Your task to perform on an android device: check data usage Image 0: 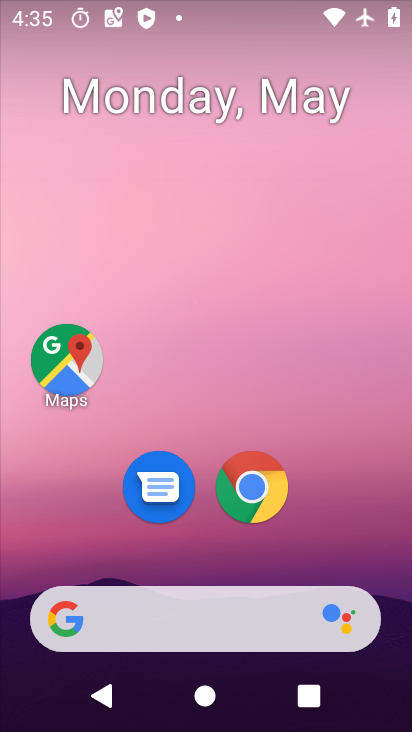
Step 0: click (261, 201)
Your task to perform on an android device: check data usage Image 1: 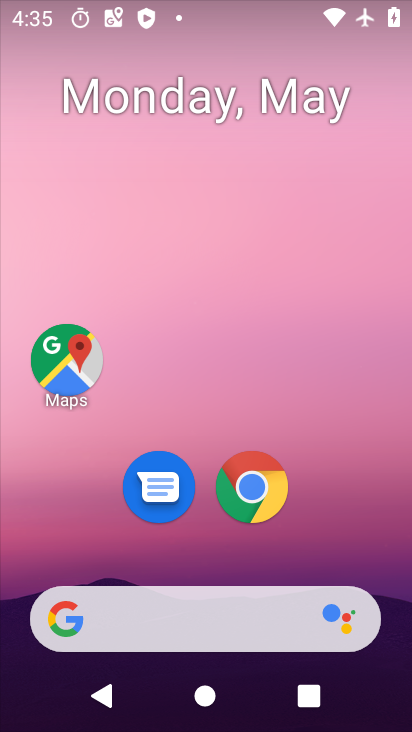
Step 1: drag from (243, 569) to (270, 158)
Your task to perform on an android device: check data usage Image 2: 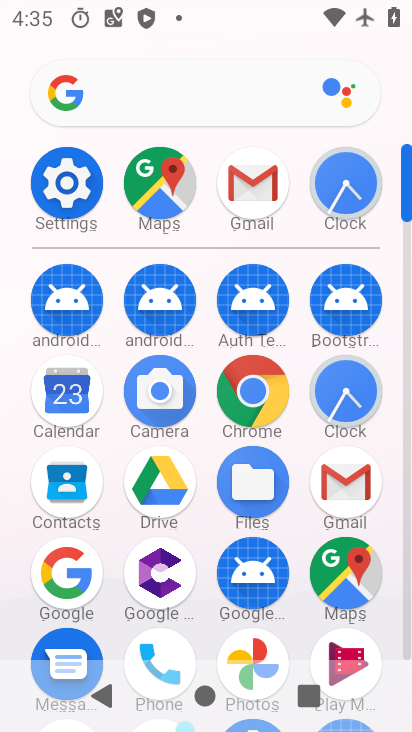
Step 2: click (61, 183)
Your task to perform on an android device: check data usage Image 3: 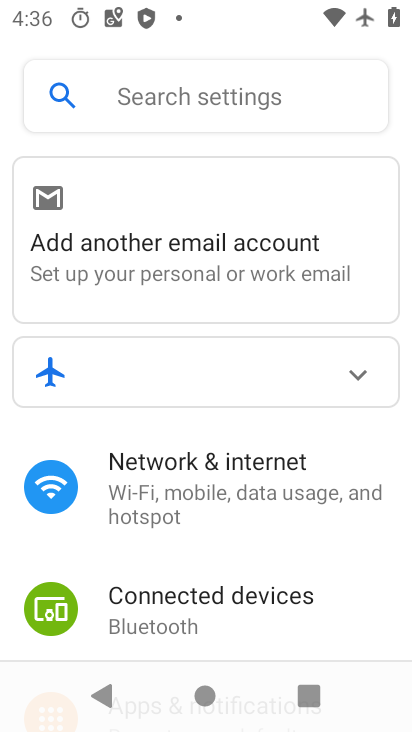
Step 3: click (168, 501)
Your task to perform on an android device: check data usage Image 4: 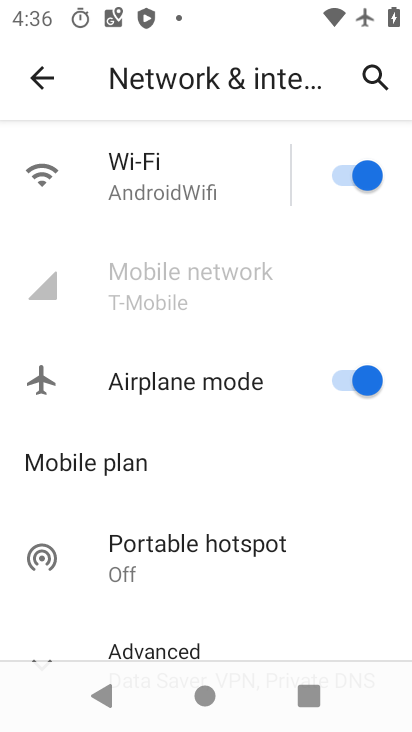
Step 4: click (341, 392)
Your task to perform on an android device: check data usage Image 5: 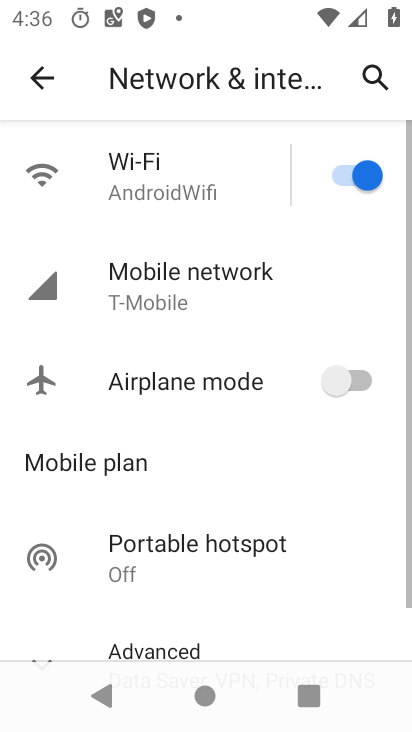
Step 5: click (192, 298)
Your task to perform on an android device: check data usage Image 6: 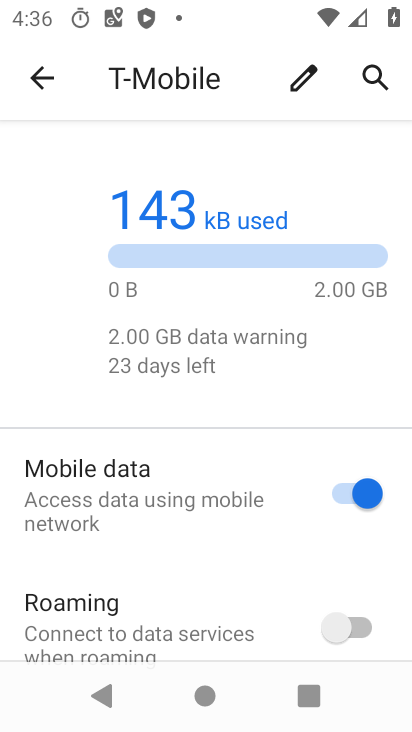
Step 6: press home button
Your task to perform on an android device: check data usage Image 7: 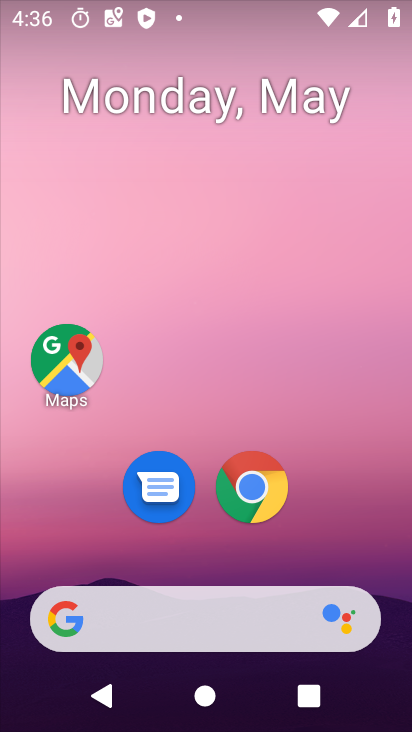
Step 7: drag from (193, 589) to (193, 167)
Your task to perform on an android device: check data usage Image 8: 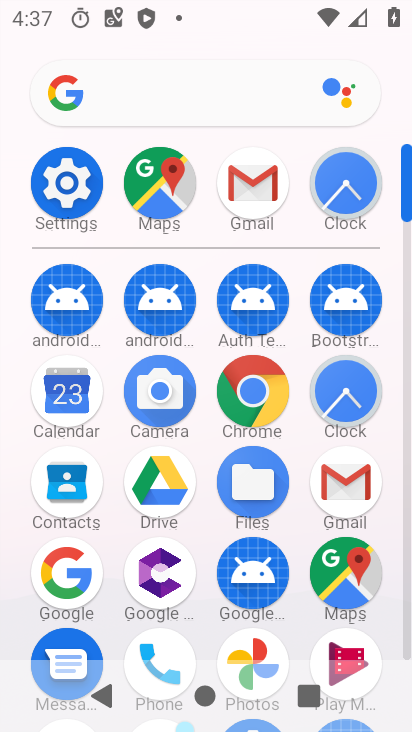
Step 8: click (64, 189)
Your task to perform on an android device: check data usage Image 9: 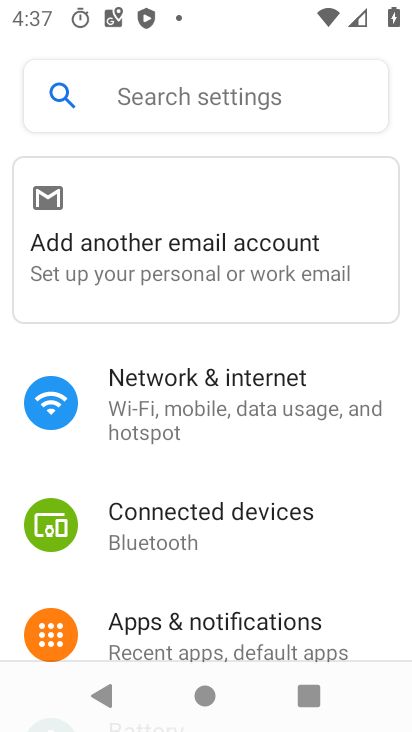
Step 9: click (199, 403)
Your task to perform on an android device: check data usage Image 10: 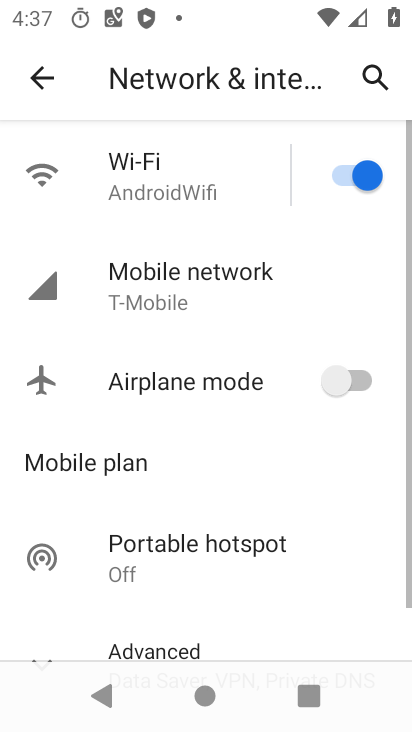
Step 10: click (177, 293)
Your task to perform on an android device: check data usage Image 11: 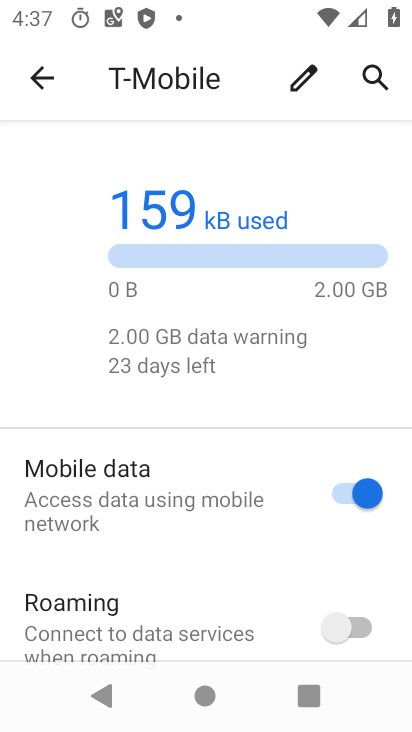
Step 11: task complete